Your task to perform on an android device: Open the Play Movies app and select the watchlist tab. Image 0: 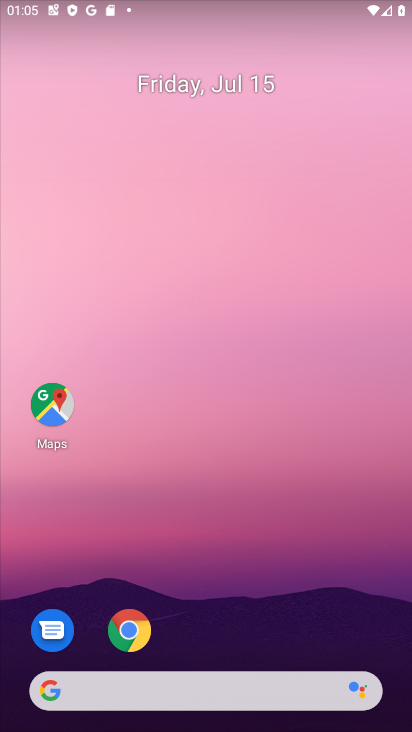
Step 0: click (140, 651)
Your task to perform on an android device: Open the Play Movies app and select the watchlist tab. Image 1: 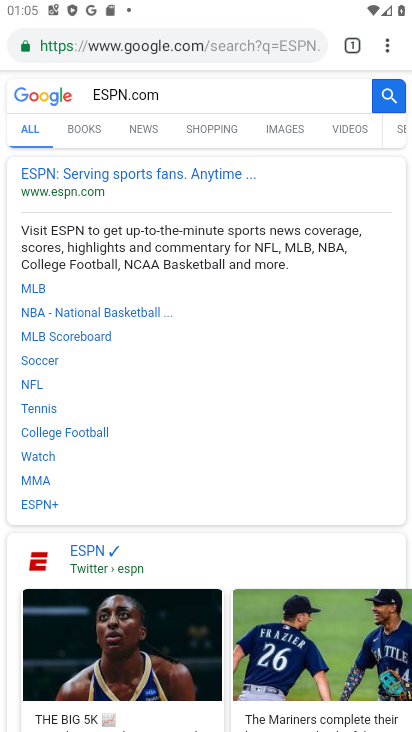
Step 1: press home button
Your task to perform on an android device: Open the Play Movies app and select the watchlist tab. Image 2: 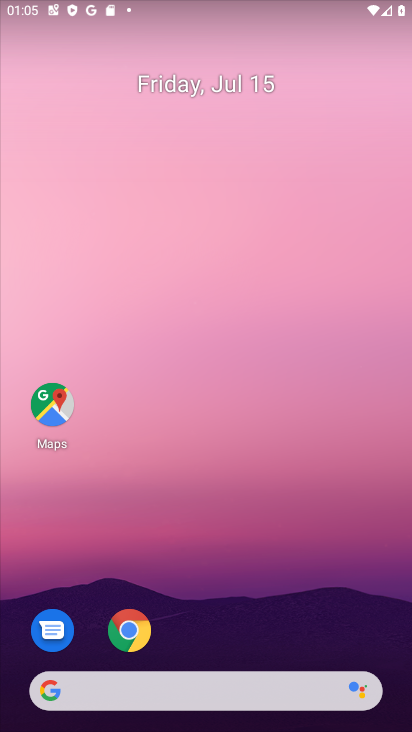
Step 2: drag from (237, 629) to (215, 177)
Your task to perform on an android device: Open the Play Movies app and select the watchlist tab. Image 3: 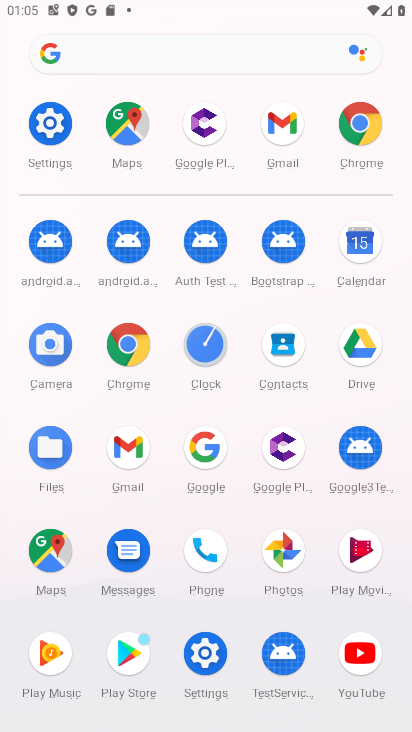
Step 3: click (364, 547)
Your task to perform on an android device: Open the Play Movies app and select the watchlist tab. Image 4: 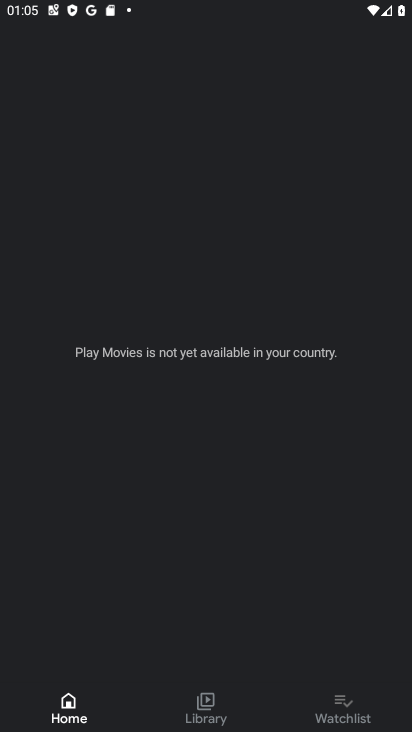
Step 4: click (315, 725)
Your task to perform on an android device: Open the Play Movies app and select the watchlist tab. Image 5: 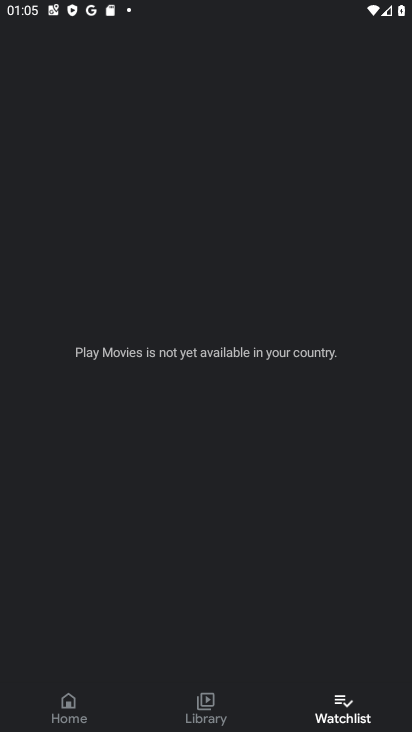
Step 5: task complete